Your task to perform on an android device: uninstall "NewsBreak: Local News & Alerts" Image 0: 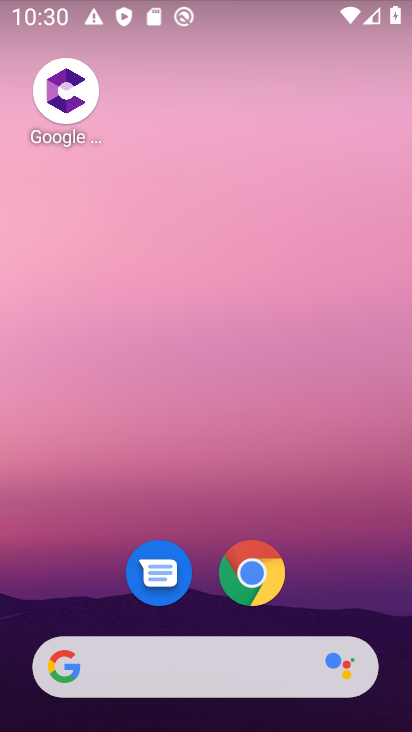
Step 0: drag from (343, 592) to (370, 88)
Your task to perform on an android device: uninstall "NewsBreak: Local News & Alerts" Image 1: 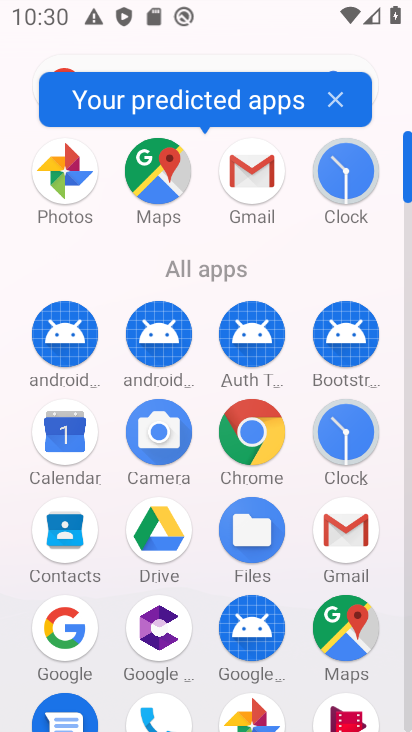
Step 1: drag from (388, 597) to (384, 236)
Your task to perform on an android device: uninstall "NewsBreak: Local News & Alerts" Image 2: 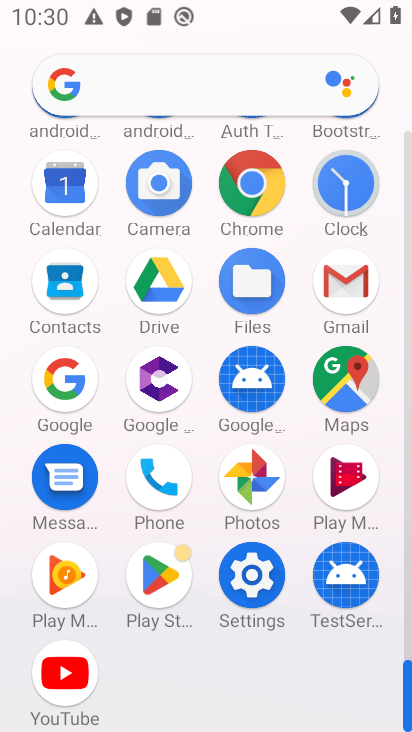
Step 2: click (166, 574)
Your task to perform on an android device: uninstall "NewsBreak: Local News & Alerts" Image 3: 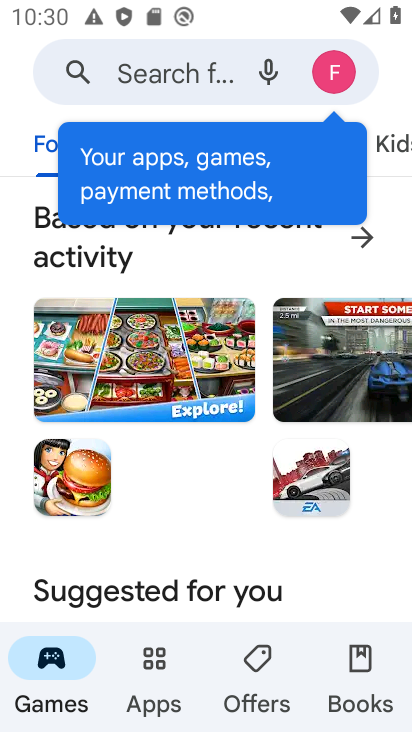
Step 3: click (175, 78)
Your task to perform on an android device: uninstall "NewsBreak: Local News & Alerts" Image 4: 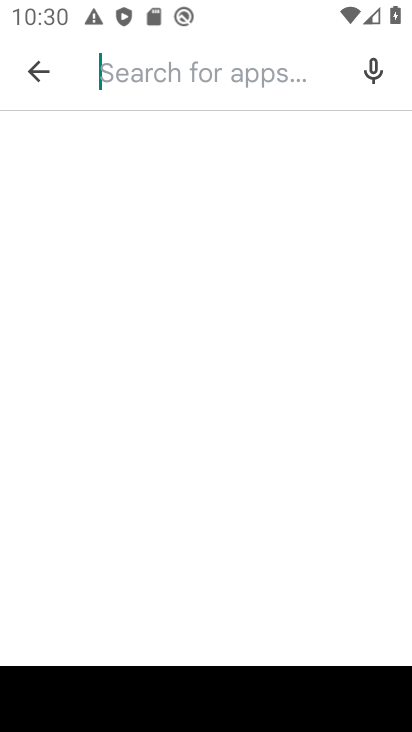
Step 4: type "NewsBreak: Local News & Alerts"
Your task to perform on an android device: uninstall "NewsBreak: Local News & Alerts" Image 5: 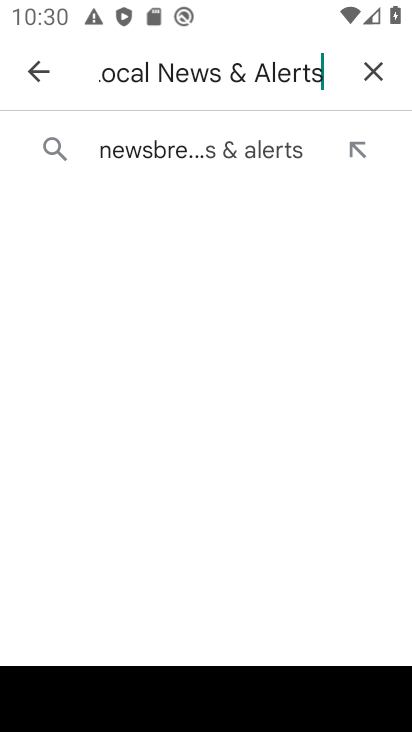
Step 5: click (233, 145)
Your task to perform on an android device: uninstall "NewsBreak: Local News & Alerts" Image 6: 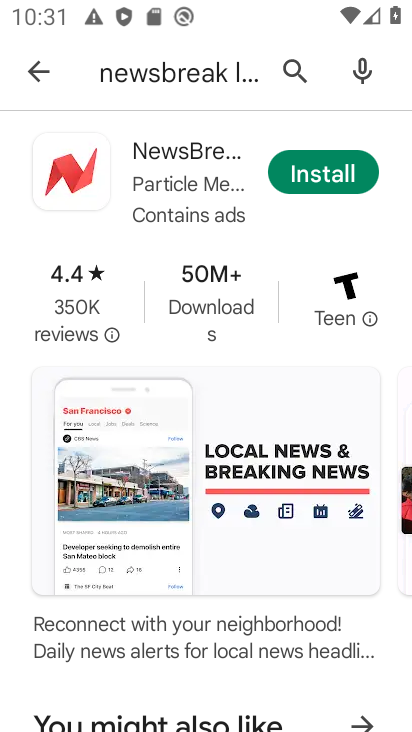
Step 6: task complete